Your task to perform on an android device: toggle data saver in the chrome app Image 0: 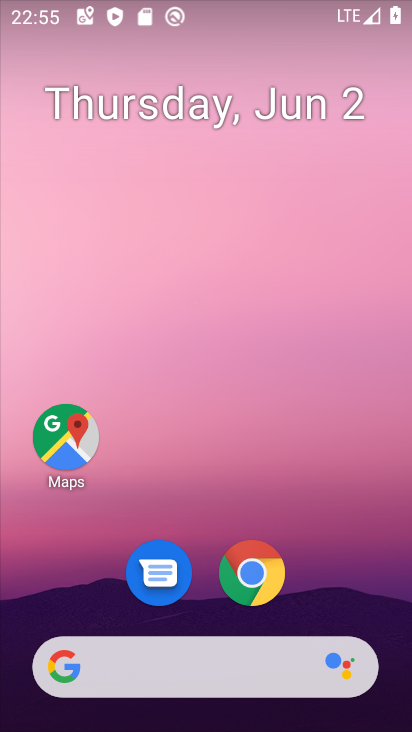
Step 0: click (252, 568)
Your task to perform on an android device: toggle data saver in the chrome app Image 1: 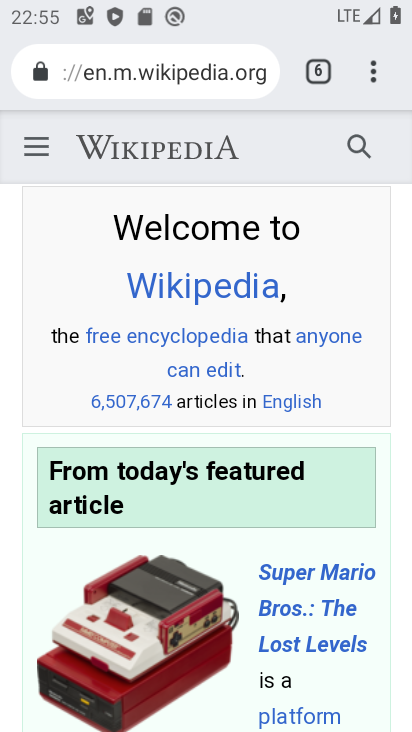
Step 1: click (368, 58)
Your task to perform on an android device: toggle data saver in the chrome app Image 2: 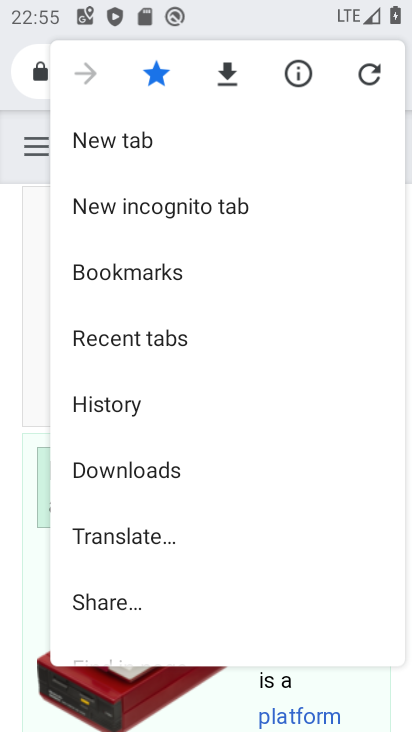
Step 2: drag from (286, 555) to (286, 201)
Your task to perform on an android device: toggle data saver in the chrome app Image 3: 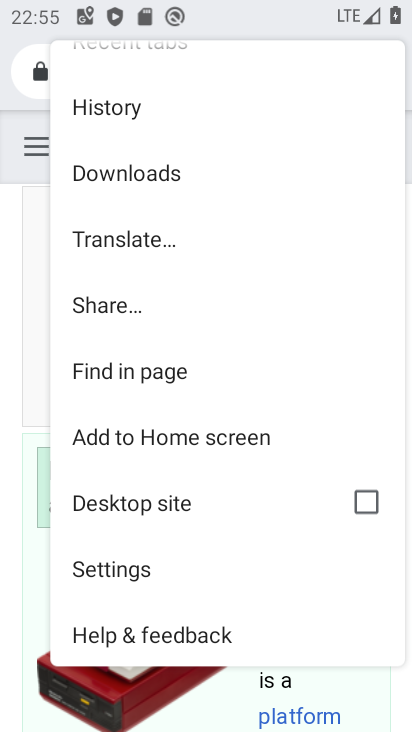
Step 3: click (142, 578)
Your task to perform on an android device: toggle data saver in the chrome app Image 4: 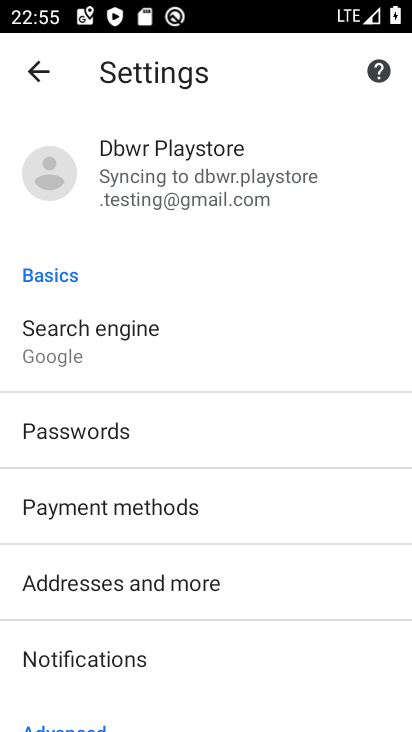
Step 4: drag from (314, 680) to (319, 443)
Your task to perform on an android device: toggle data saver in the chrome app Image 5: 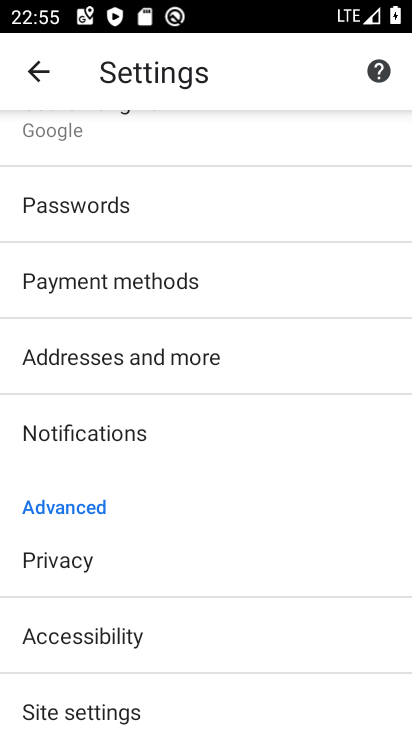
Step 5: click (162, 552)
Your task to perform on an android device: toggle data saver in the chrome app Image 6: 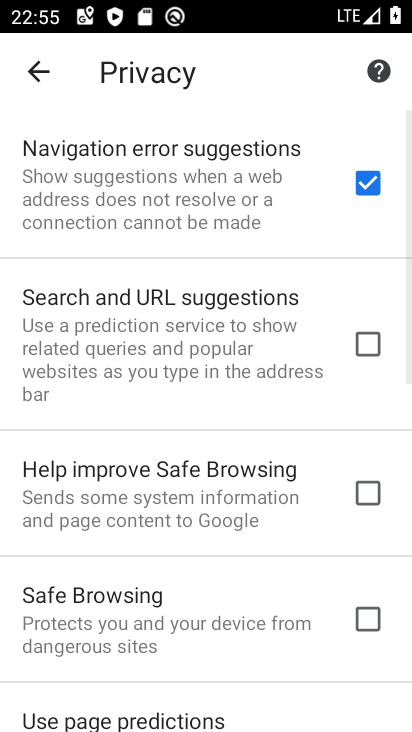
Step 6: drag from (162, 552) to (162, 344)
Your task to perform on an android device: toggle data saver in the chrome app Image 7: 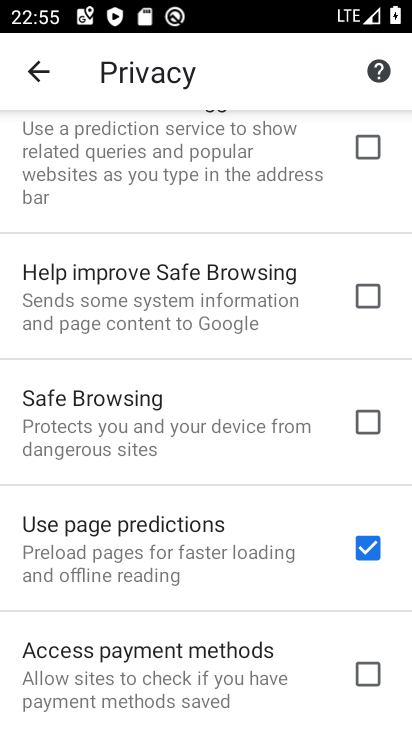
Step 7: drag from (146, 298) to (132, 66)
Your task to perform on an android device: toggle data saver in the chrome app Image 8: 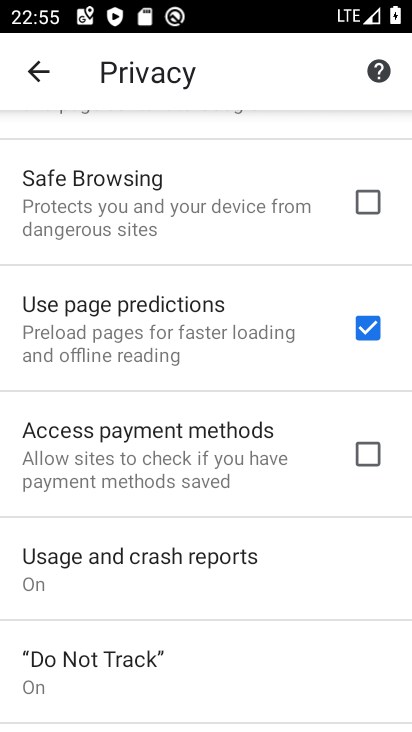
Step 8: drag from (186, 577) to (187, 323)
Your task to perform on an android device: toggle data saver in the chrome app Image 9: 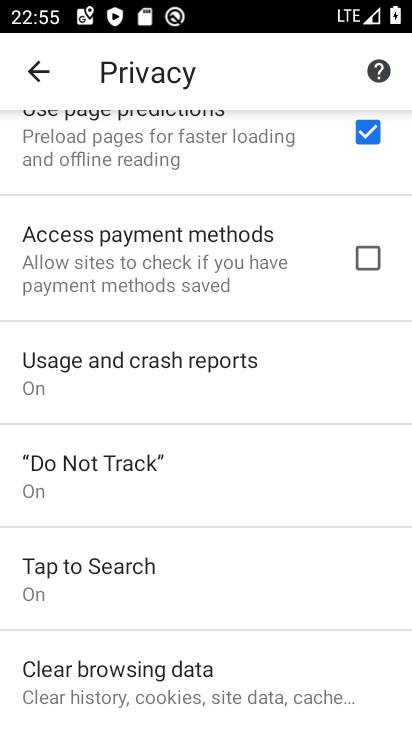
Step 9: press back button
Your task to perform on an android device: toggle data saver in the chrome app Image 10: 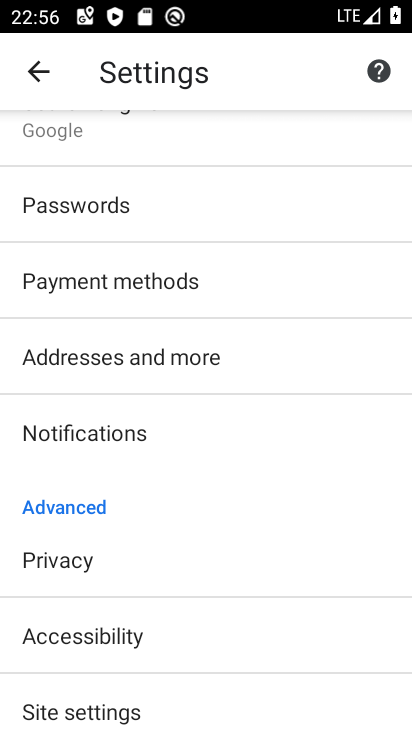
Step 10: click (236, 700)
Your task to perform on an android device: toggle data saver in the chrome app Image 11: 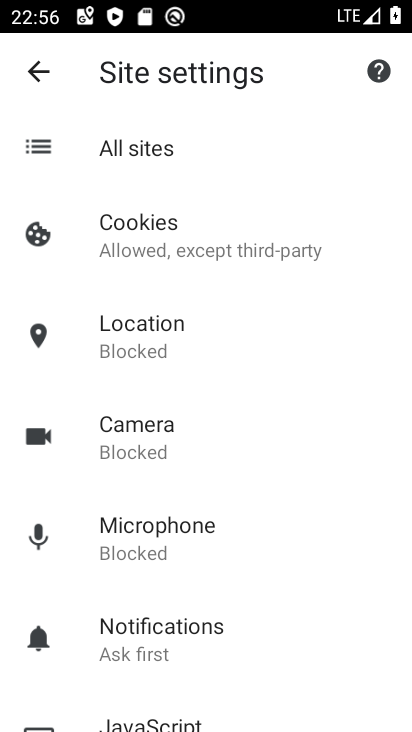
Step 11: task complete